Your task to perform on an android device: toggle show notifications on the lock screen Image 0: 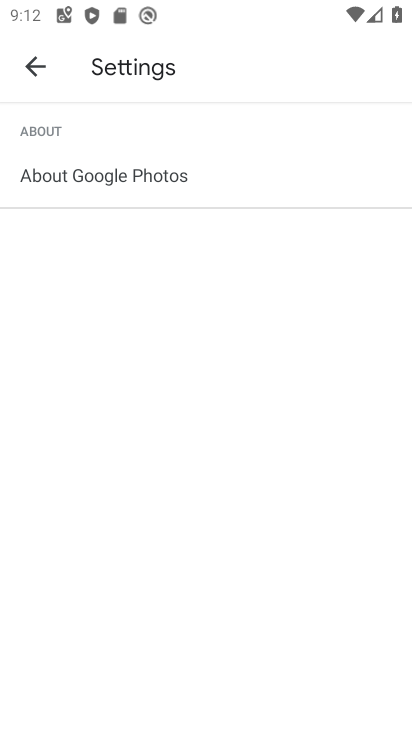
Step 0: press home button
Your task to perform on an android device: toggle show notifications on the lock screen Image 1: 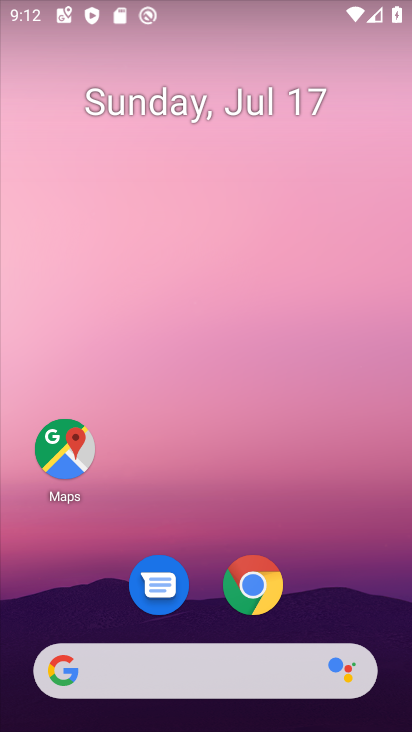
Step 1: drag from (305, 558) to (285, 61)
Your task to perform on an android device: toggle show notifications on the lock screen Image 2: 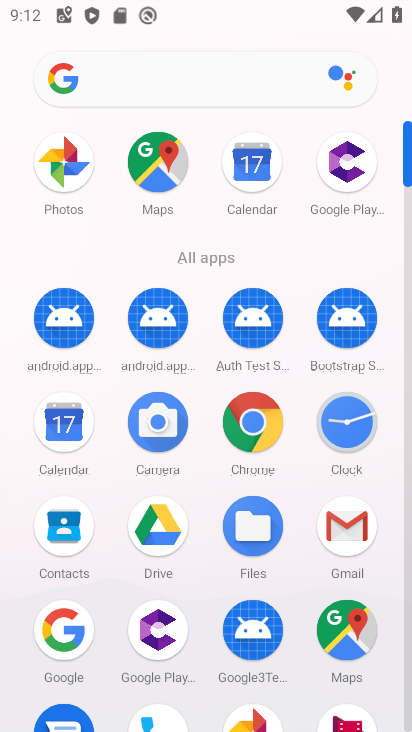
Step 2: drag from (197, 521) to (204, 60)
Your task to perform on an android device: toggle show notifications on the lock screen Image 3: 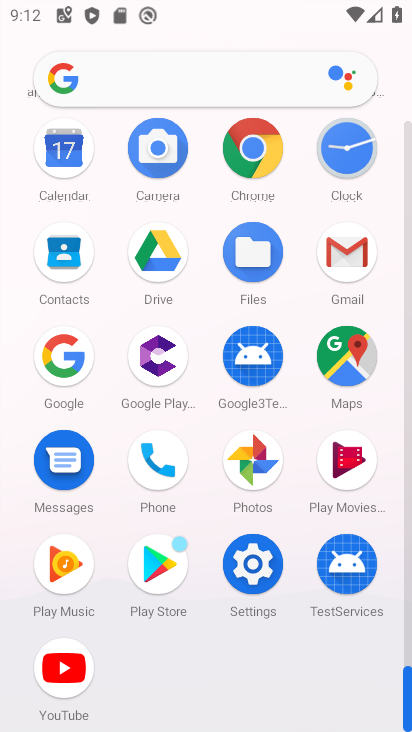
Step 3: click (245, 552)
Your task to perform on an android device: toggle show notifications on the lock screen Image 4: 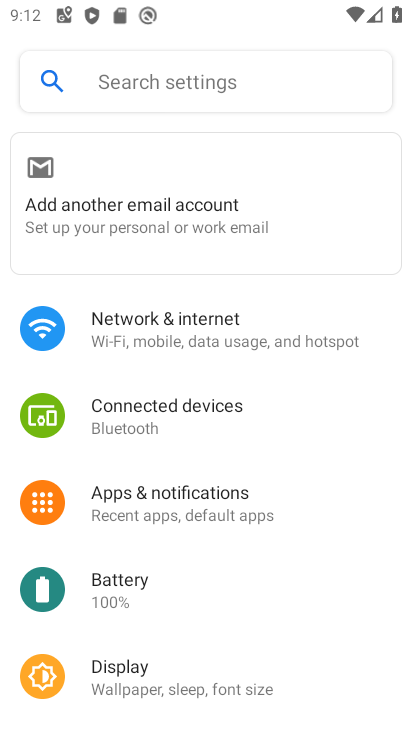
Step 4: click (237, 519)
Your task to perform on an android device: toggle show notifications on the lock screen Image 5: 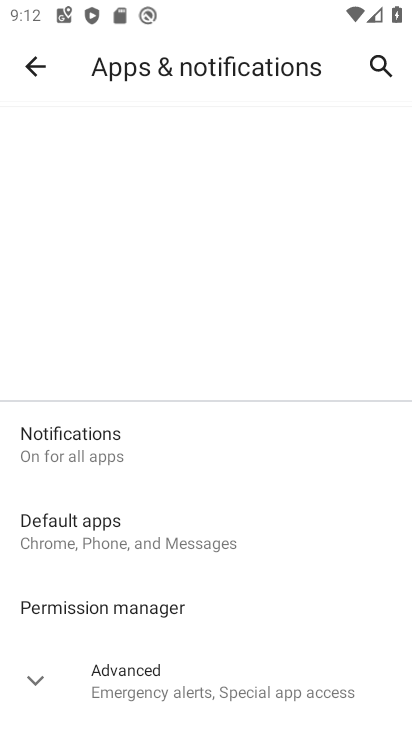
Step 5: click (197, 503)
Your task to perform on an android device: toggle show notifications on the lock screen Image 6: 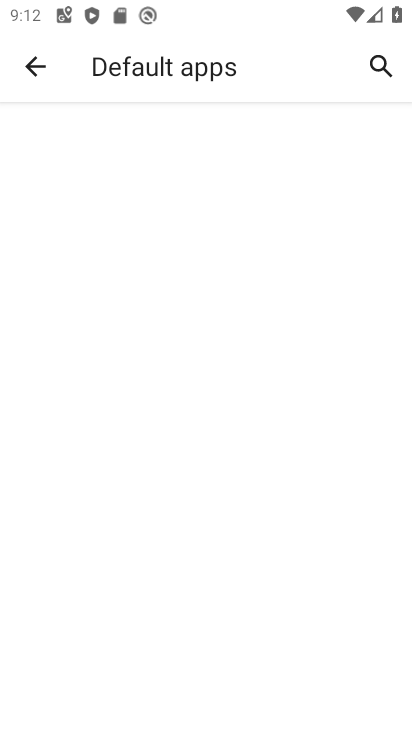
Step 6: click (111, 444)
Your task to perform on an android device: toggle show notifications on the lock screen Image 7: 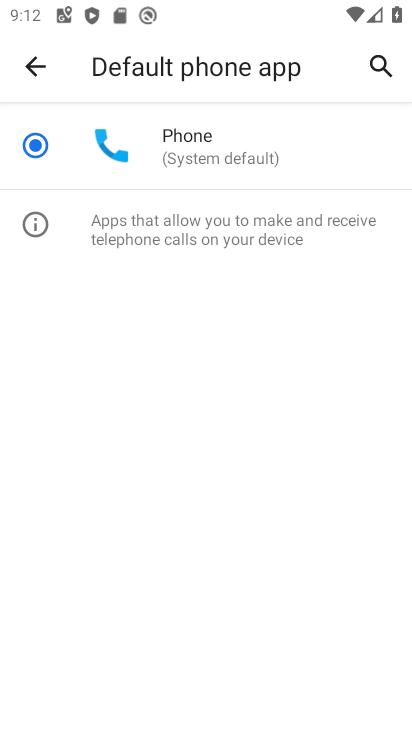
Step 7: click (32, 58)
Your task to perform on an android device: toggle show notifications on the lock screen Image 8: 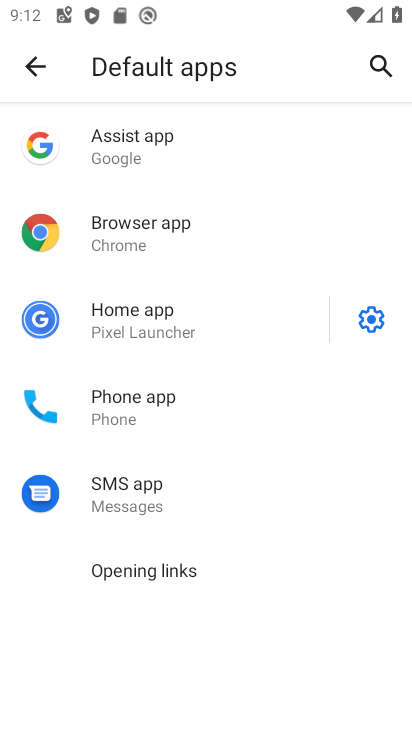
Step 8: click (32, 57)
Your task to perform on an android device: toggle show notifications on the lock screen Image 9: 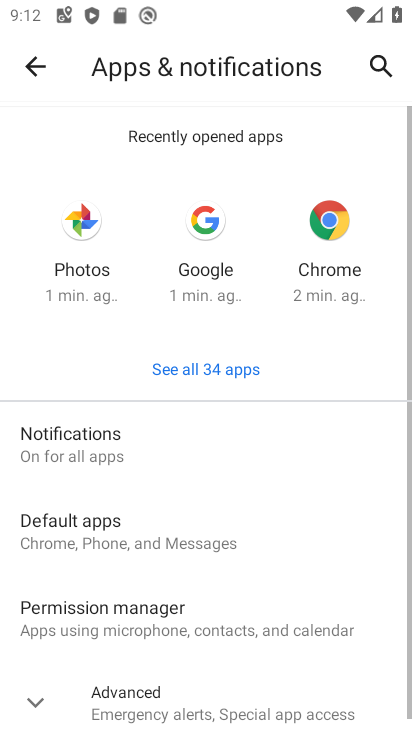
Step 9: click (61, 446)
Your task to perform on an android device: toggle show notifications on the lock screen Image 10: 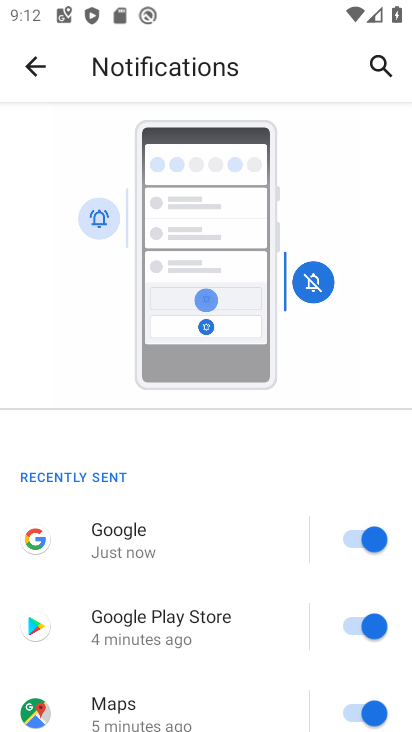
Step 10: drag from (180, 648) to (154, 257)
Your task to perform on an android device: toggle show notifications on the lock screen Image 11: 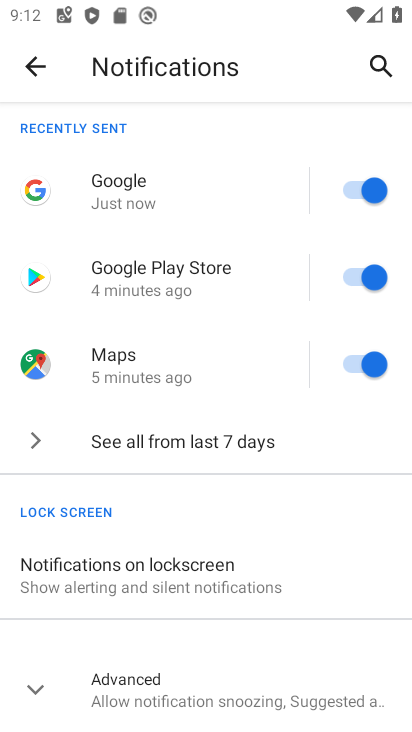
Step 11: click (187, 579)
Your task to perform on an android device: toggle show notifications on the lock screen Image 12: 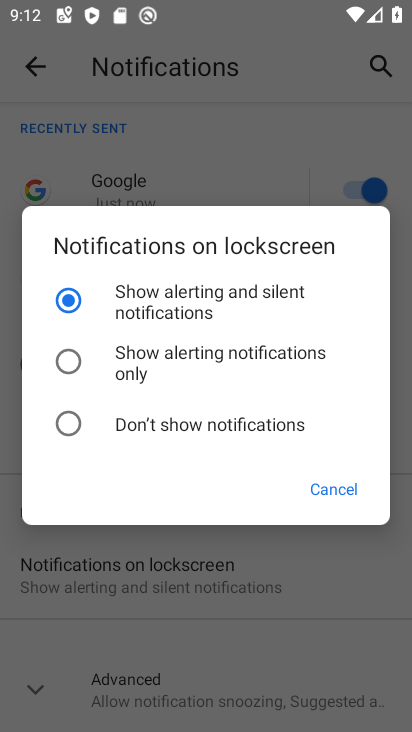
Step 12: click (69, 414)
Your task to perform on an android device: toggle show notifications on the lock screen Image 13: 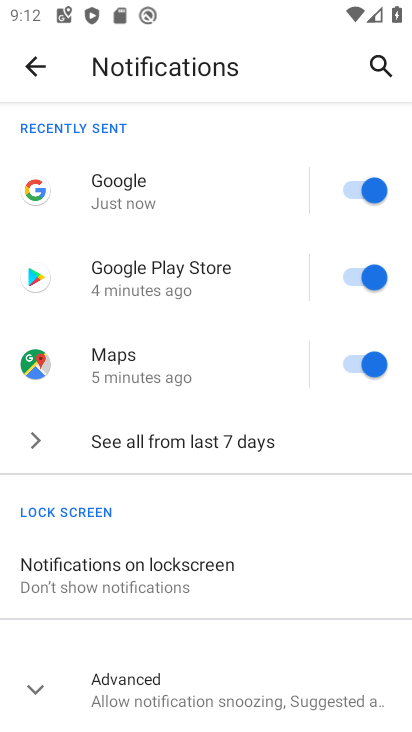
Step 13: task complete